Your task to perform on an android device: Open display settings Image 0: 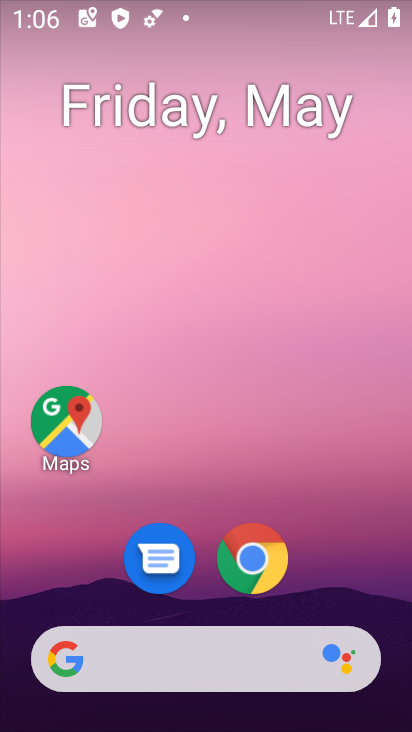
Step 0: drag from (389, 618) to (374, 7)
Your task to perform on an android device: Open display settings Image 1: 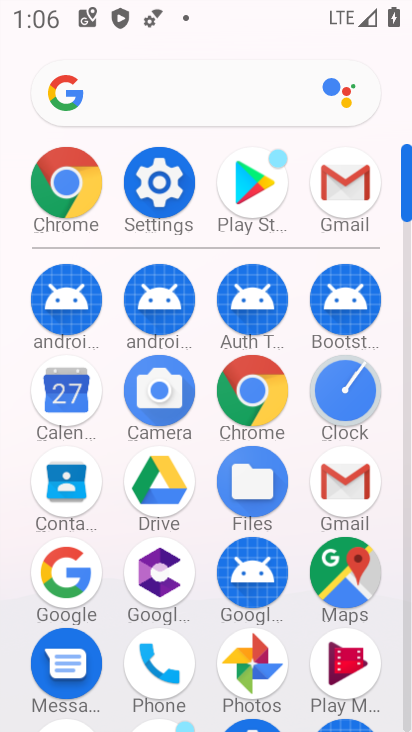
Step 1: click (165, 174)
Your task to perform on an android device: Open display settings Image 2: 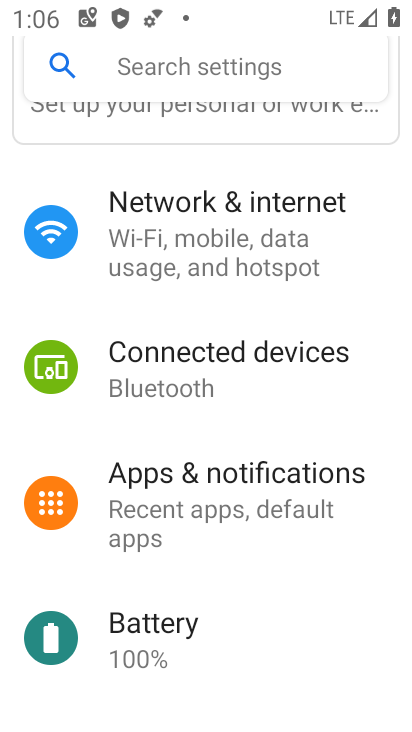
Step 2: drag from (269, 606) to (264, 132)
Your task to perform on an android device: Open display settings Image 3: 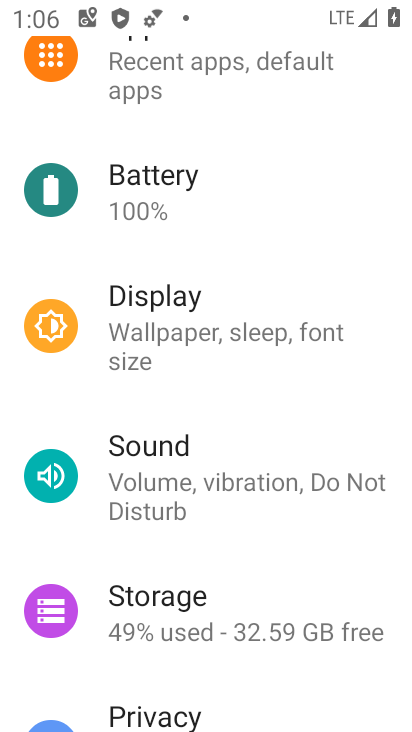
Step 3: click (252, 309)
Your task to perform on an android device: Open display settings Image 4: 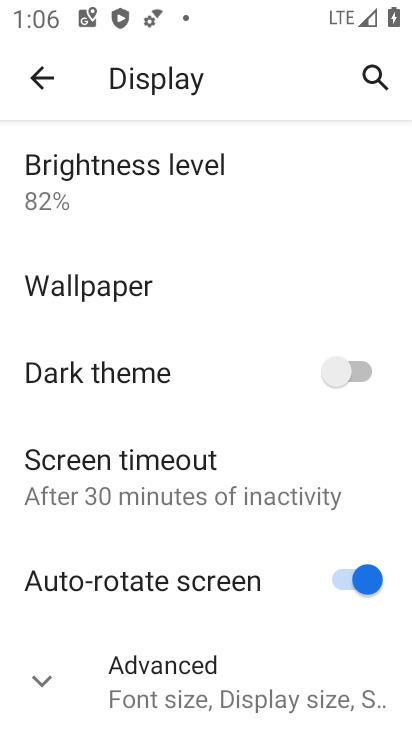
Step 4: task complete